Your task to perform on an android device: What's the weather going to be tomorrow? Image 0: 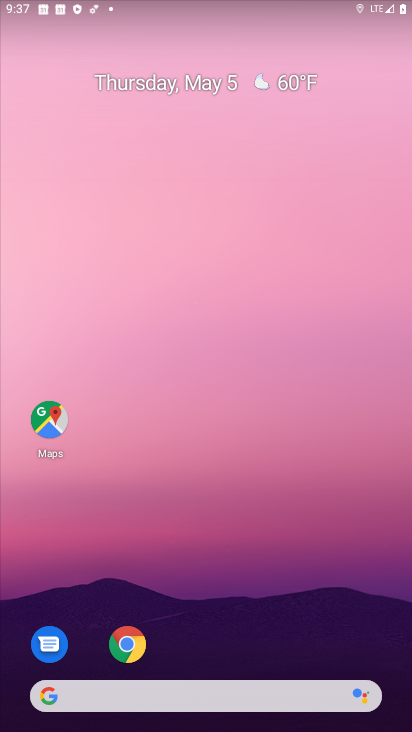
Step 0: click (184, 138)
Your task to perform on an android device: What's the weather going to be tomorrow? Image 1: 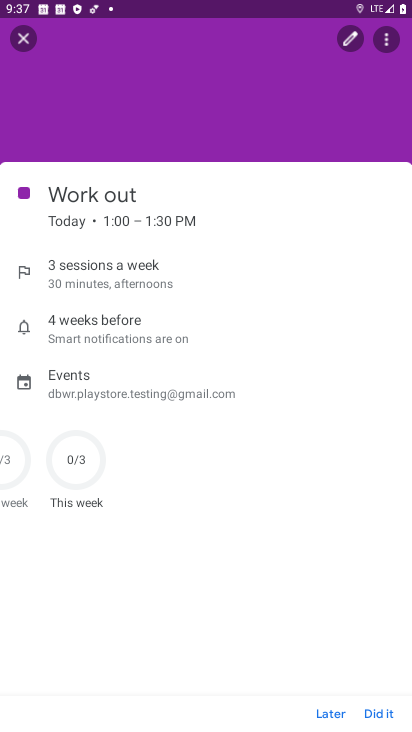
Step 1: drag from (284, 354) to (301, 195)
Your task to perform on an android device: What's the weather going to be tomorrow? Image 2: 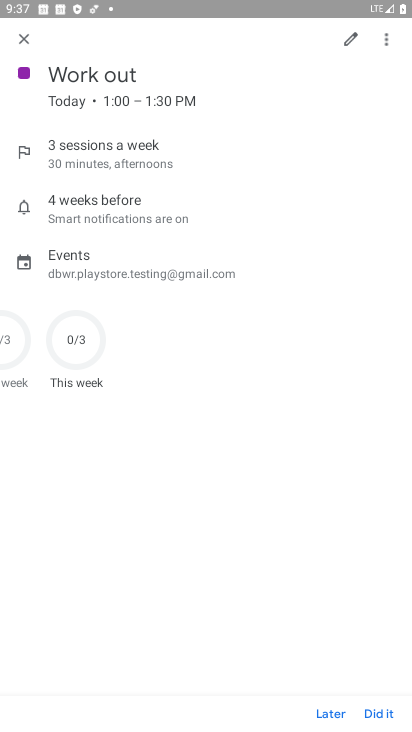
Step 2: click (30, 41)
Your task to perform on an android device: What's the weather going to be tomorrow? Image 3: 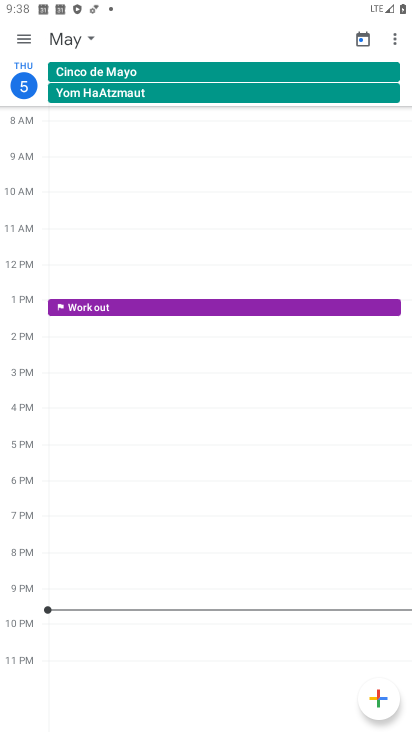
Step 3: drag from (158, 573) to (121, 96)
Your task to perform on an android device: What's the weather going to be tomorrow? Image 4: 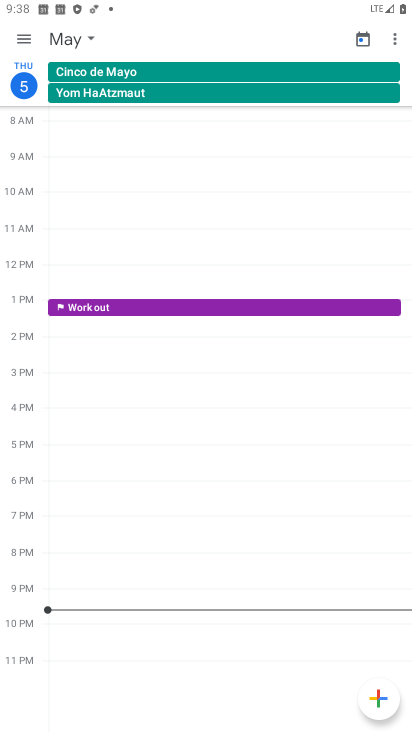
Step 4: drag from (110, 82) to (287, 562)
Your task to perform on an android device: What's the weather going to be tomorrow? Image 5: 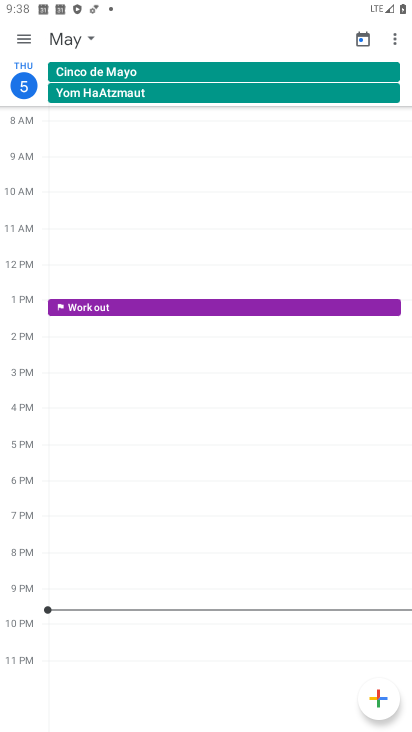
Step 5: press home button
Your task to perform on an android device: What's the weather going to be tomorrow? Image 6: 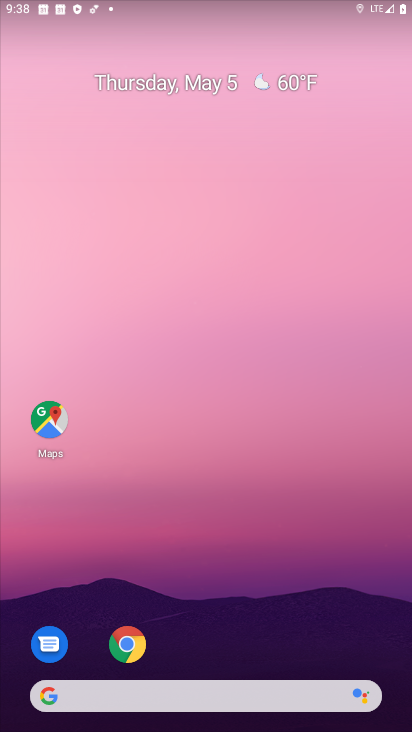
Step 6: drag from (214, 619) to (231, 184)
Your task to perform on an android device: What's the weather going to be tomorrow? Image 7: 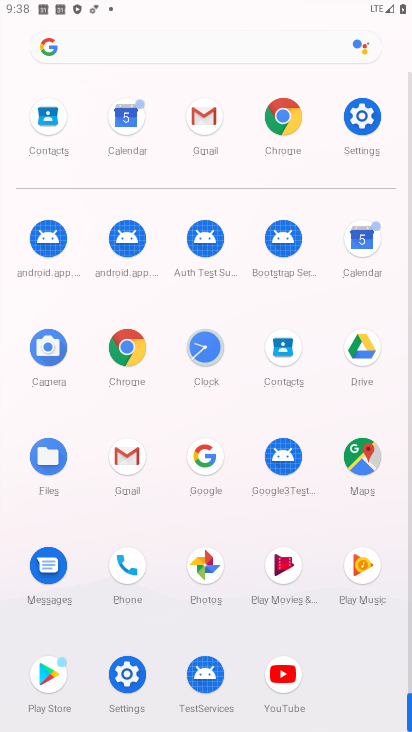
Step 7: click (213, 46)
Your task to perform on an android device: What's the weather going to be tomorrow? Image 8: 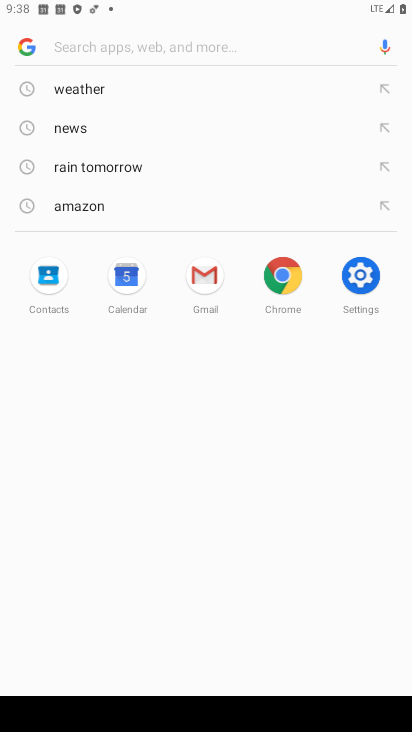
Step 8: click (164, 36)
Your task to perform on an android device: What's the weather going to be tomorrow? Image 9: 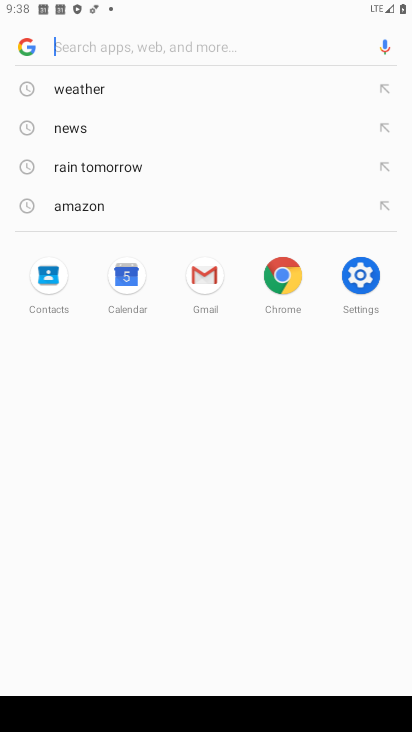
Step 9: type "waether tomorrow"
Your task to perform on an android device: What's the weather going to be tomorrow? Image 10: 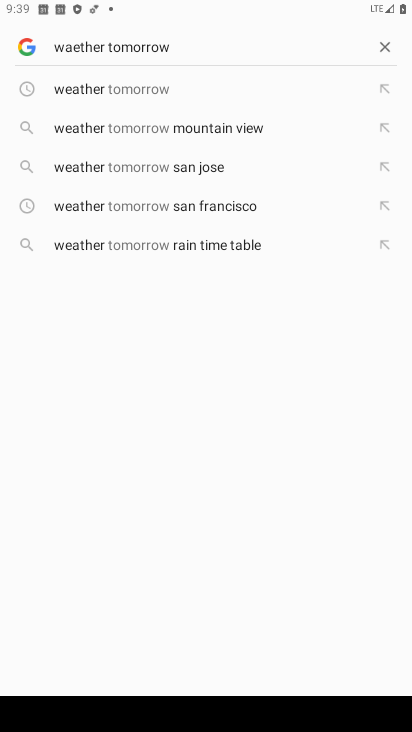
Step 10: click (164, 88)
Your task to perform on an android device: What's the weather going to be tomorrow? Image 11: 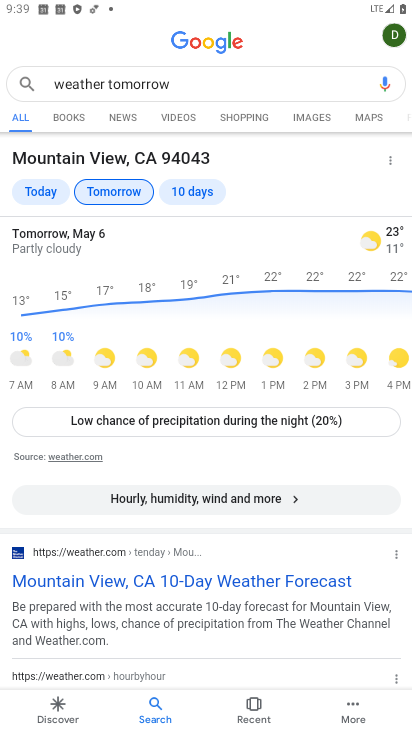
Step 11: task complete